Your task to perform on an android device: Open location settings Image 0: 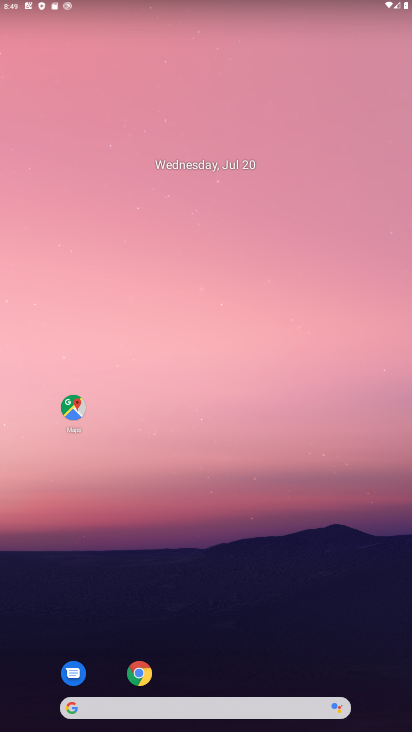
Step 0: drag from (197, 610) to (297, 0)
Your task to perform on an android device: Open location settings Image 1: 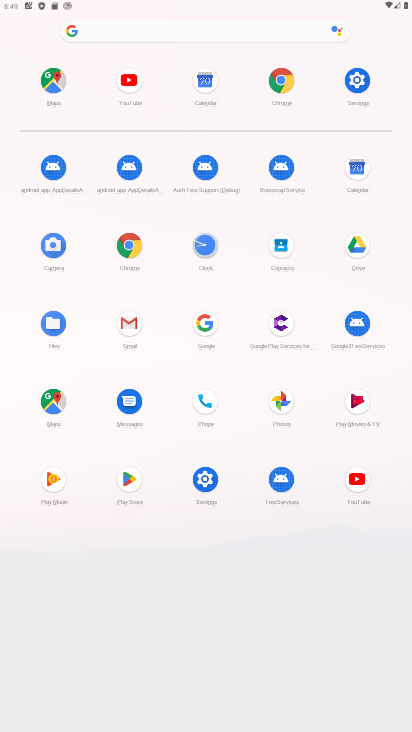
Step 1: click (201, 475)
Your task to perform on an android device: Open location settings Image 2: 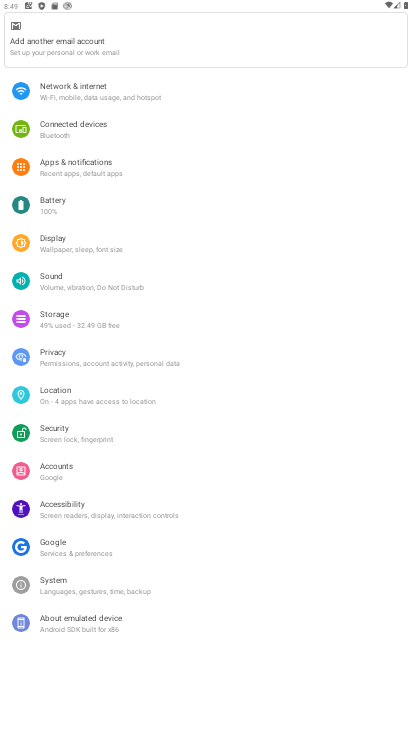
Step 2: click (132, 390)
Your task to perform on an android device: Open location settings Image 3: 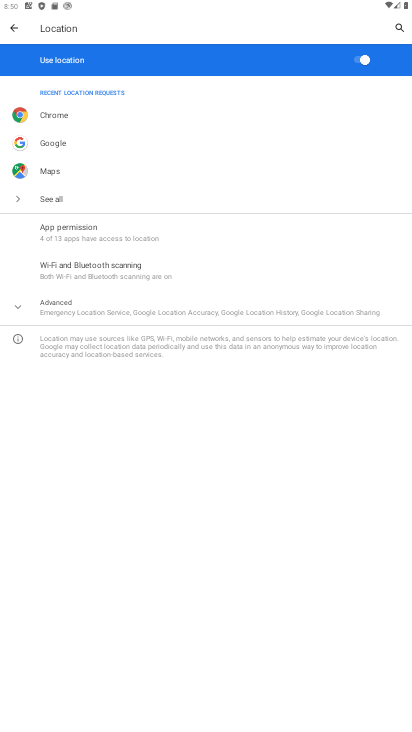
Step 3: click (77, 298)
Your task to perform on an android device: Open location settings Image 4: 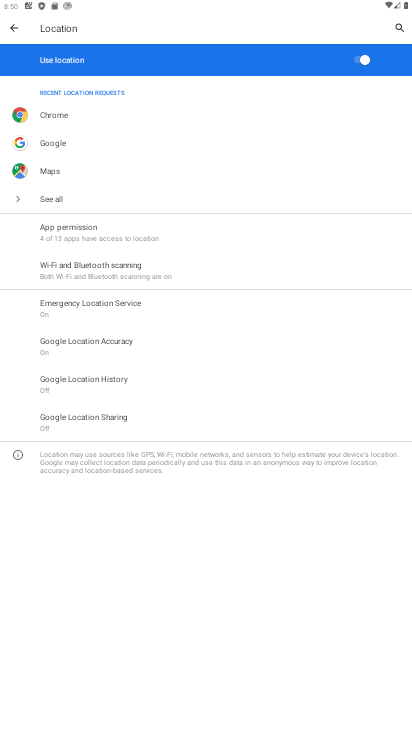
Step 4: task complete